Your task to perform on an android device: Go to CNN.com Image 0: 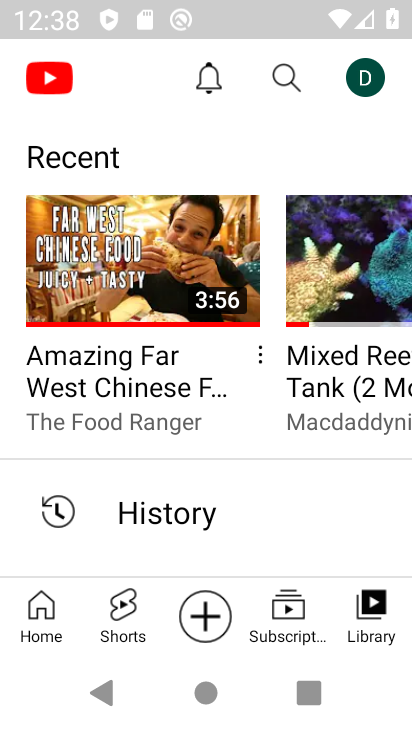
Step 0: press home button
Your task to perform on an android device: Go to CNN.com Image 1: 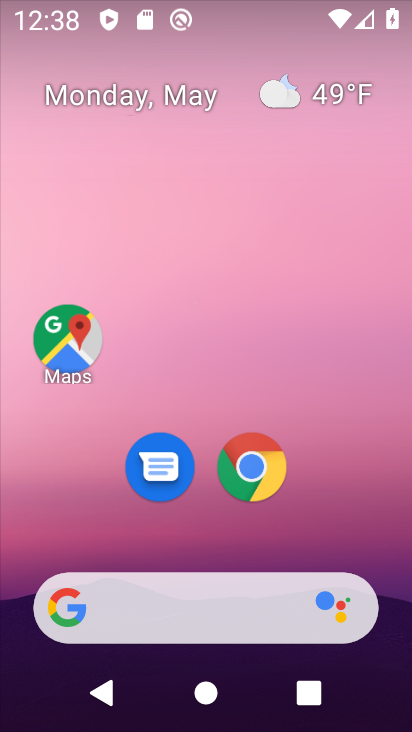
Step 1: drag from (335, 505) to (348, 119)
Your task to perform on an android device: Go to CNN.com Image 2: 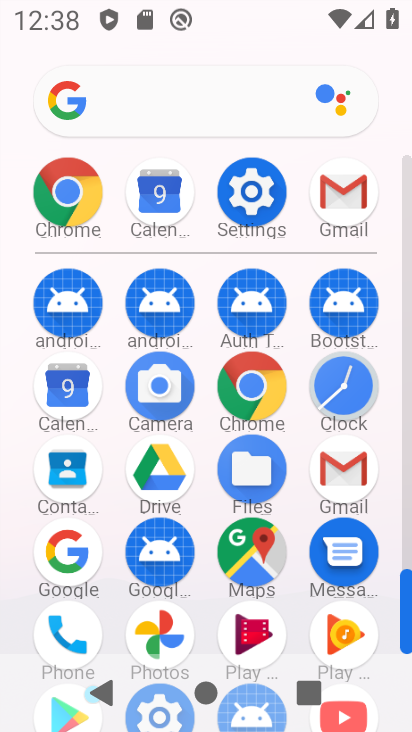
Step 2: click (259, 401)
Your task to perform on an android device: Go to CNN.com Image 3: 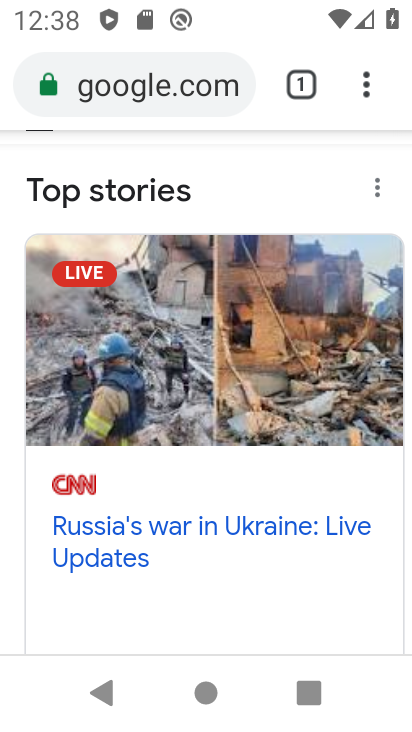
Step 3: click (210, 89)
Your task to perform on an android device: Go to CNN.com Image 4: 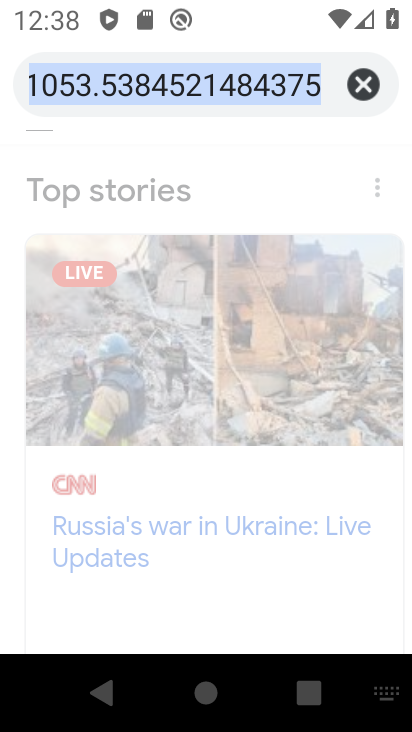
Step 4: click (366, 92)
Your task to perform on an android device: Go to CNN.com Image 5: 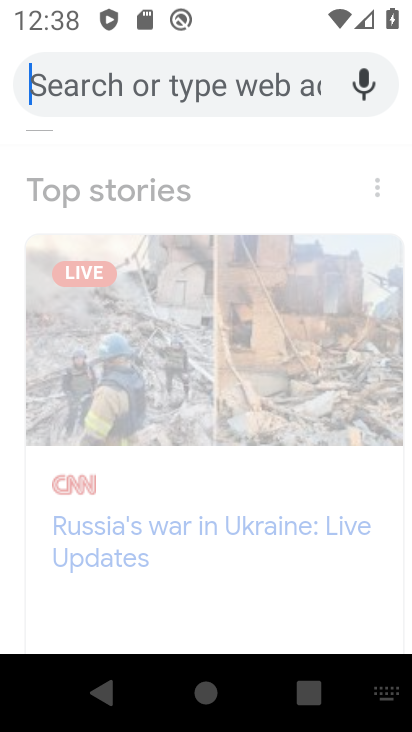
Step 5: type "cnn.com"
Your task to perform on an android device: Go to CNN.com Image 6: 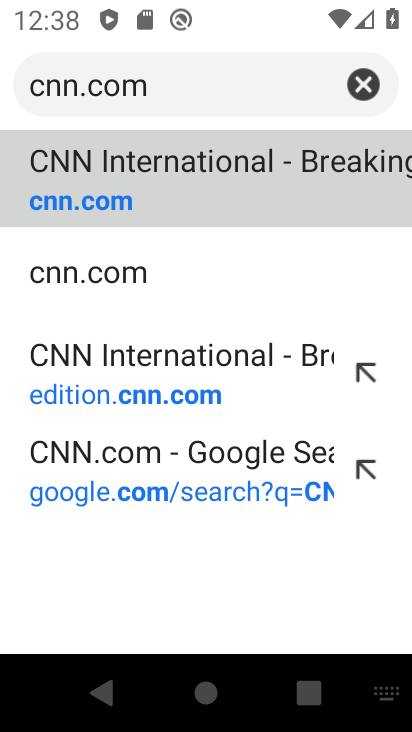
Step 6: click (169, 214)
Your task to perform on an android device: Go to CNN.com Image 7: 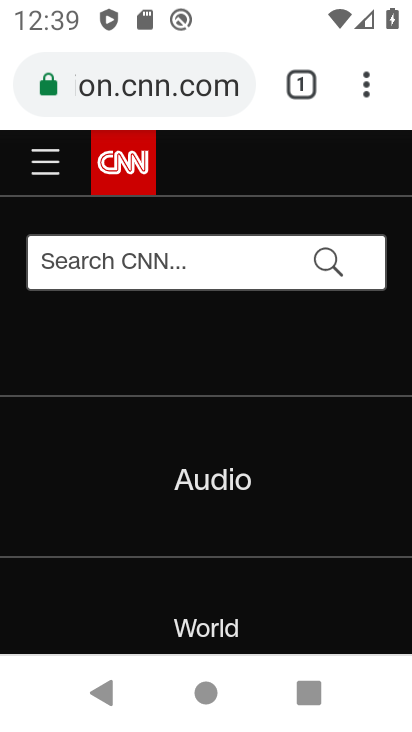
Step 7: task complete